Your task to perform on an android device: Go to wifi settings Image 0: 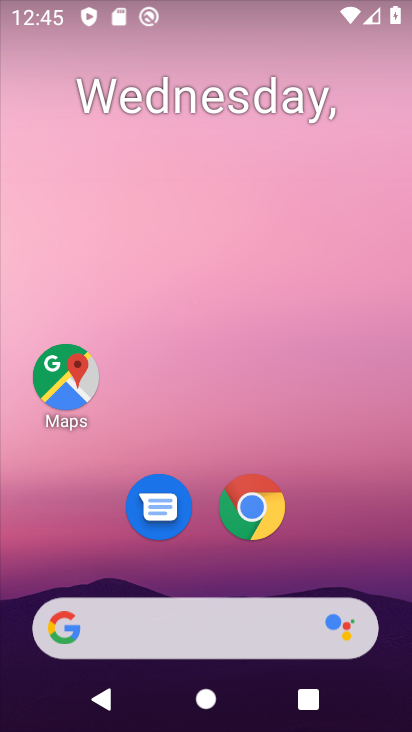
Step 0: press home button
Your task to perform on an android device: Go to wifi settings Image 1: 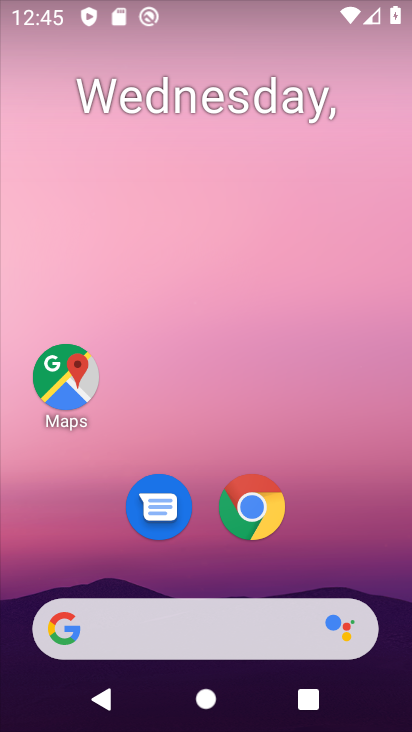
Step 1: drag from (169, 602) to (221, 192)
Your task to perform on an android device: Go to wifi settings Image 2: 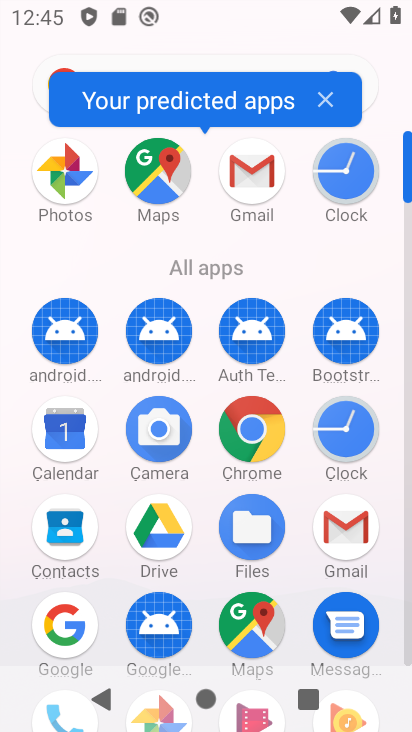
Step 2: drag from (220, 583) to (302, 213)
Your task to perform on an android device: Go to wifi settings Image 3: 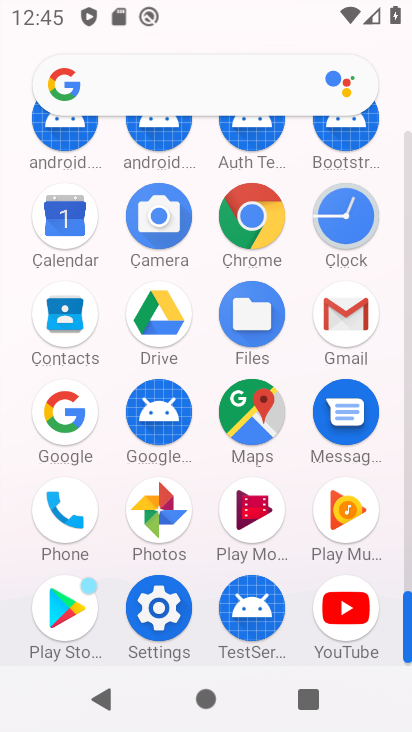
Step 3: click (170, 620)
Your task to perform on an android device: Go to wifi settings Image 4: 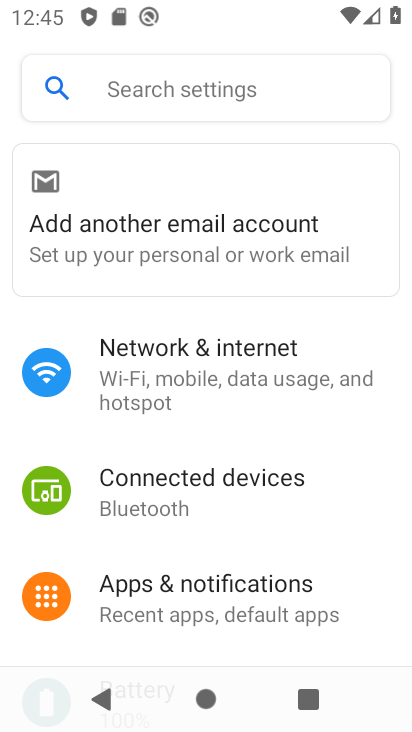
Step 4: click (187, 353)
Your task to perform on an android device: Go to wifi settings Image 5: 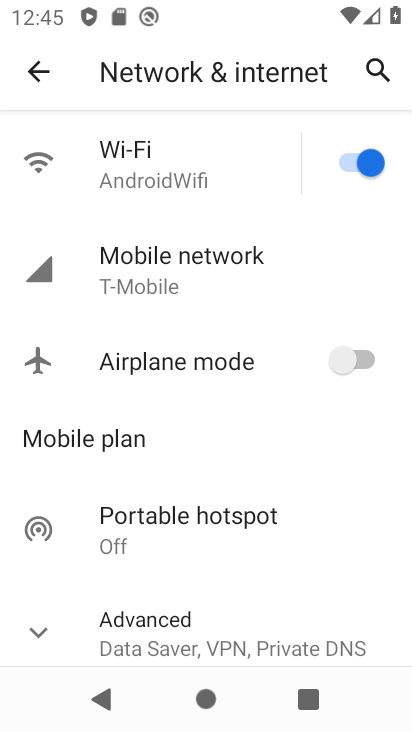
Step 5: click (139, 178)
Your task to perform on an android device: Go to wifi settings Image 6: 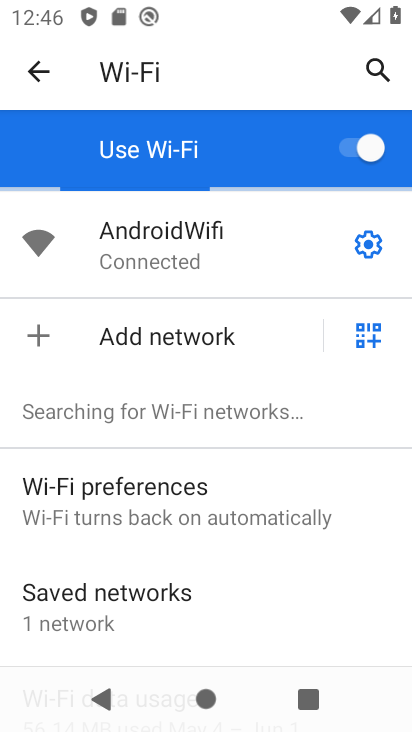
Step 6: task complete